Your task to perform on an android device: Search for the best burger restaurants on Maps Image 0: 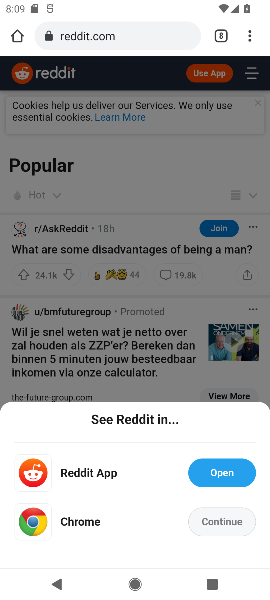
Step 0: press home button
Your task to perform on an android device: Search for the best burger restaurants on Maps Image 1: 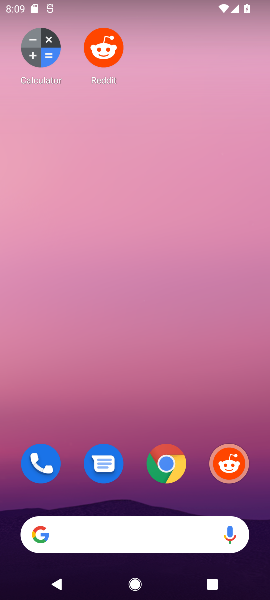
Step 1: drag from (141, 514) to (142, 108)
Your task to perform on an android device: Search for the best burger restaurants on Maps Image 2: 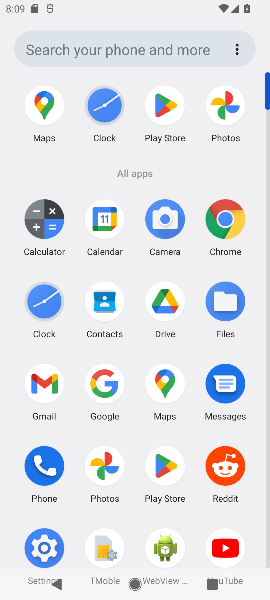
Step 2: drag from (116, 457) to (127, 244)
Your task to perform on an android device: Search for the best burger restaurants on Maps Image 3: 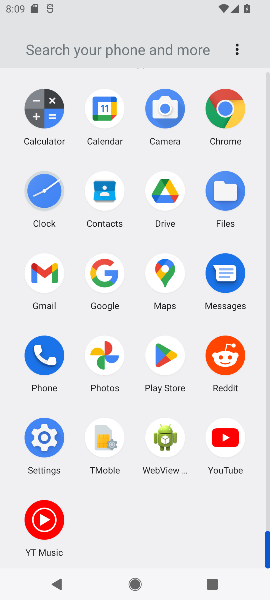
Step 3: click (167, 270)
Your task to perform on an android device: Search for the best burger restaurants on Maps Image 4: 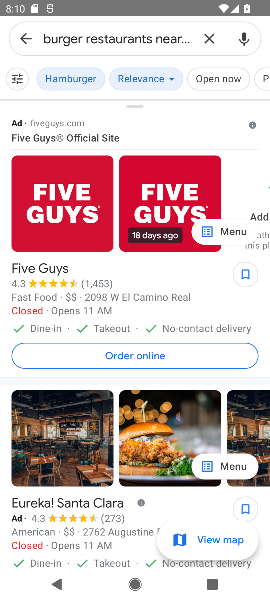
Step 4: task complete